Your task to perform on an android device: Go to Android settings Image 0: 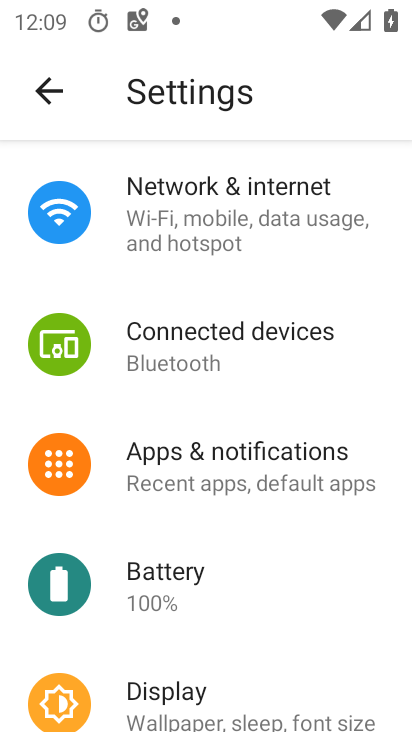
Step 0: drag from (312, 699) to (152, 151)
Your task to perform on an android device: Go to Android settings Image 1: 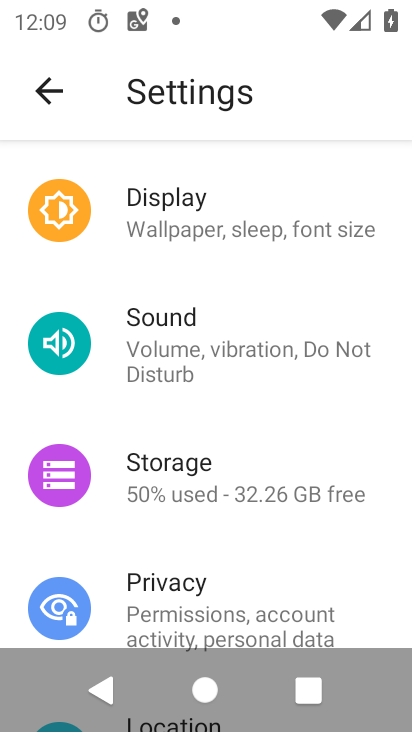
Step 1: task complete